Your task to perform on an android device: Open Wikipedia Image 0: 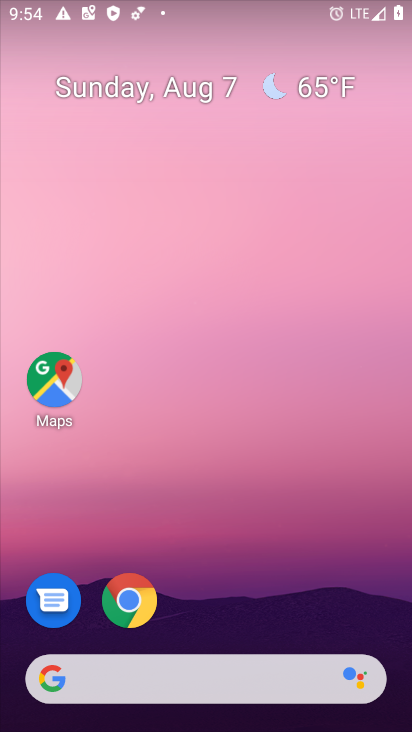
Step 0: drag from (190, 571) to (181, 28)
Your task to perform on an android device: Open Wikipedia Image 1: 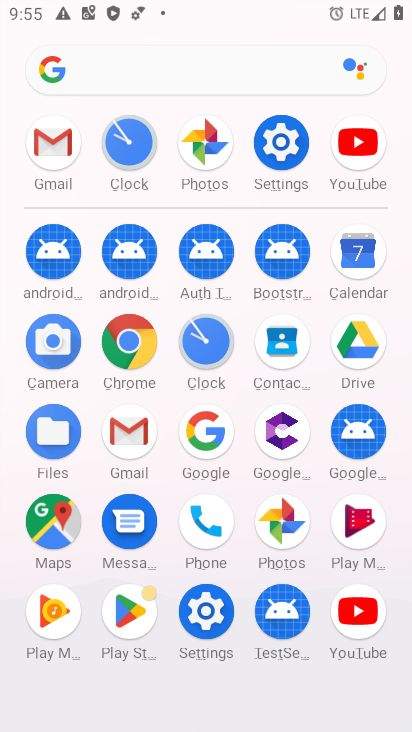
Step 1: click (119, 353)
Your task to perform on an android device: Open Wikipedia Image 2: 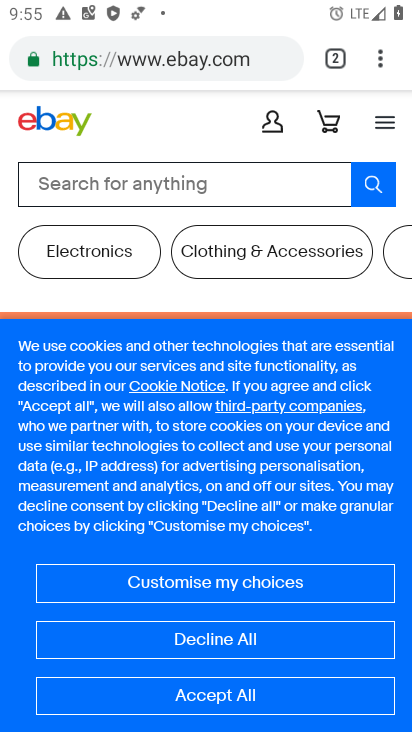
Step 2: click (210, 68)
Your task to perform on an android device: Open Wikipedia Image 3: 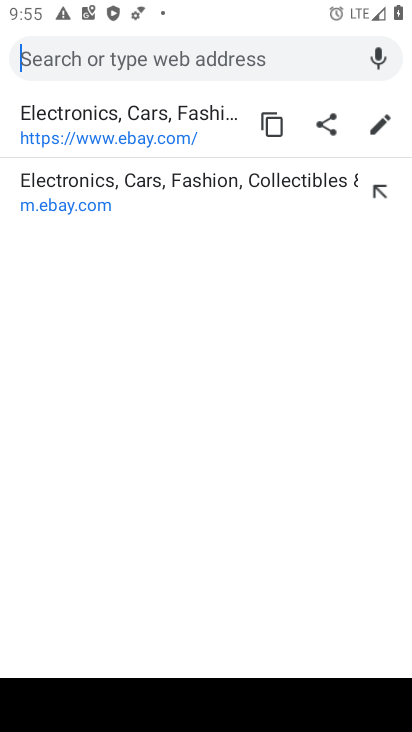
Step 3: type "www.wikipedia"
Your task to perform on an android device: Open Wikipedia Image 4: 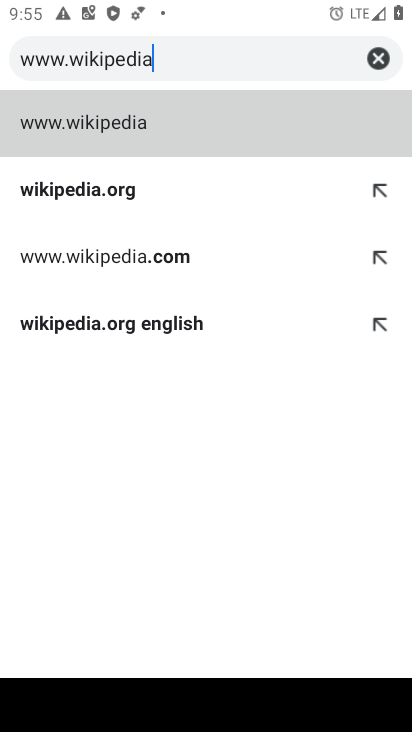
Step 4: click (111, 115)
Your task to perform on an android device: Open Wikipedia Image 5: 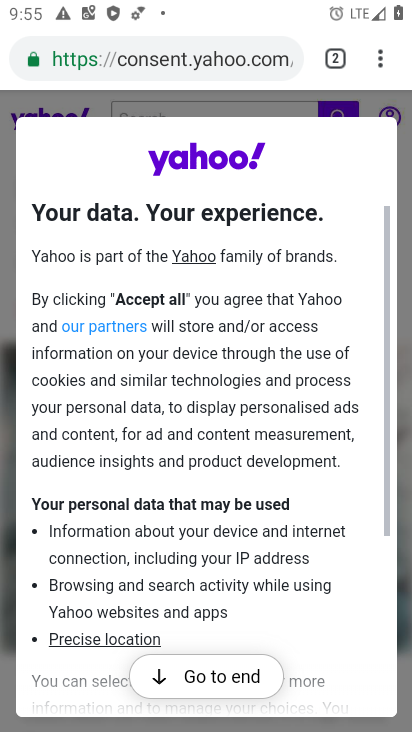
Step 5: click (230, 71)
Your task to perform on an android device: Open Wikipedia Image 6: 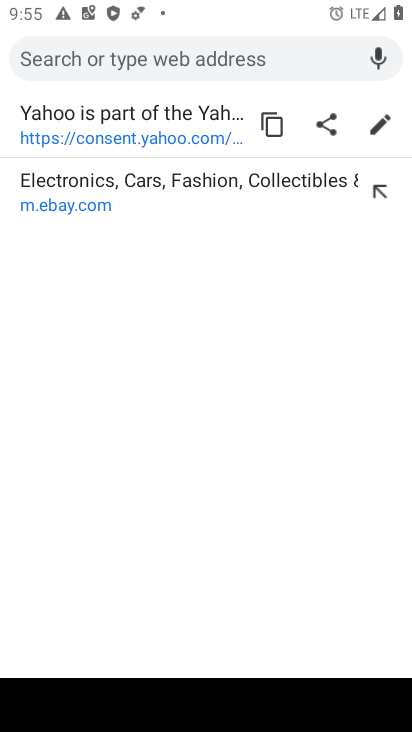
Step 6: type "www.wikipedia.com"
Your task to perform on an android device: Open Wikipedia Image 7: 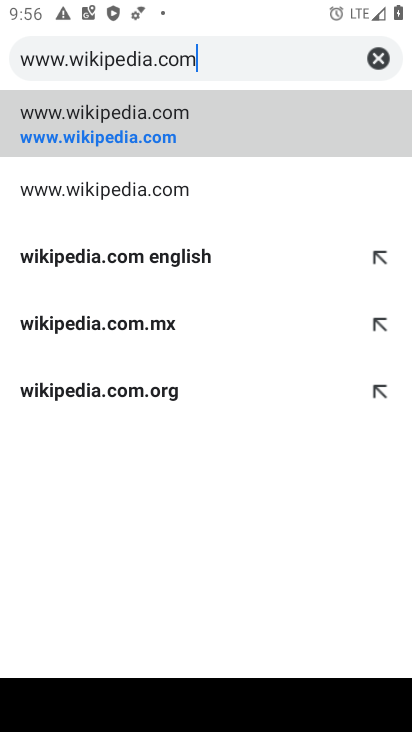
Step 7: click (132, 142)
Your task to perform on an android device: Open Wikipedia Image 8: 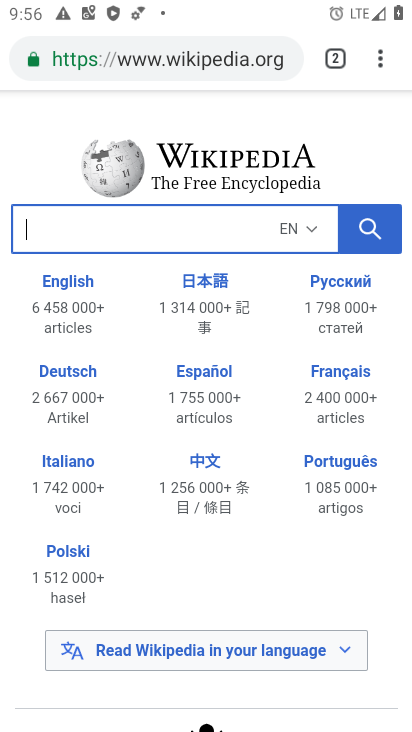
Step 8: task complete